Your task to perform on an android device: check data usage Image 0: 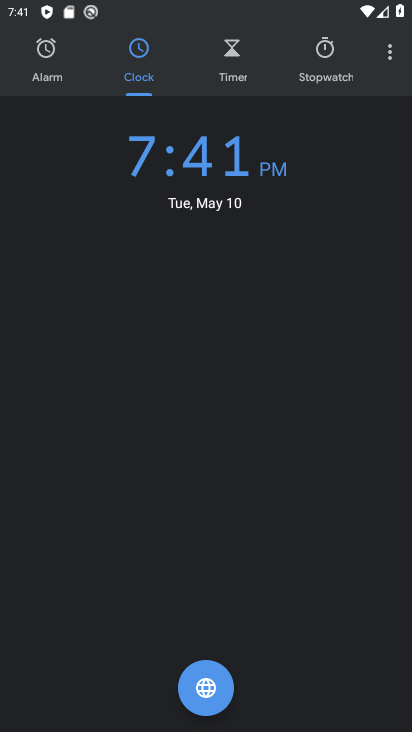
Step 0: drag from (261, 559) to (271, 181)
Your task to perform on an android device: check data usage Image 1: 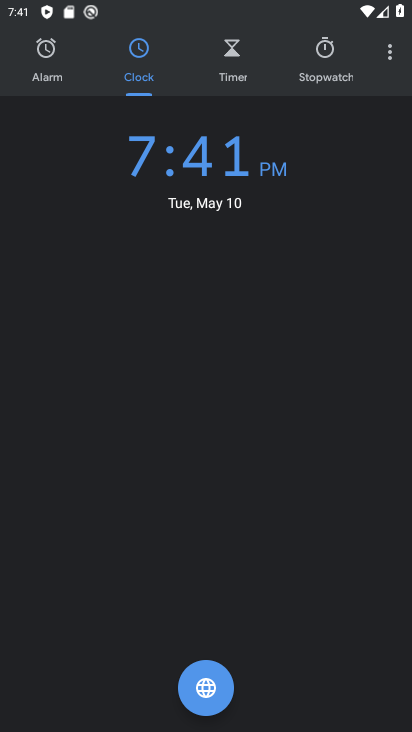
Step 1: drag from (263, 406) to (210, 153)
Your task to perform on an android device: check data usage Image 2: 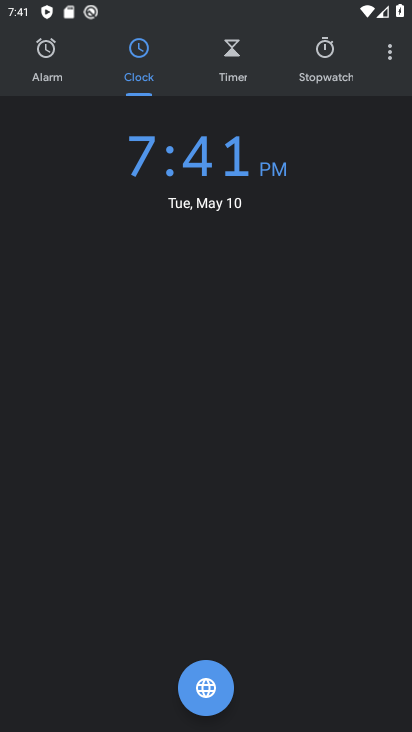
Step 2: press home button
Your task to perform on an android device: check data usage Image 3: 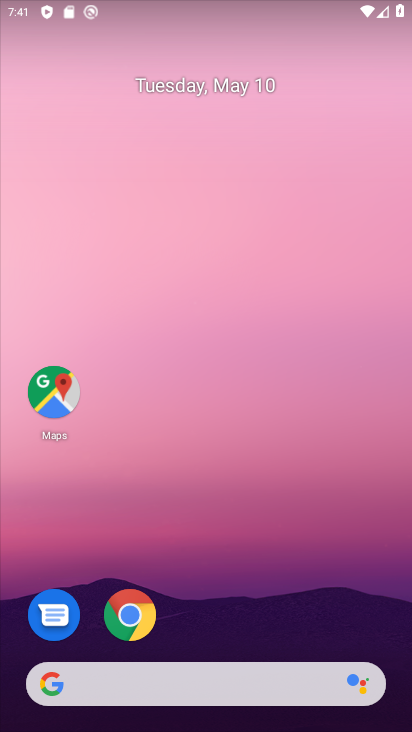
Step 3: drag from (185, 627) to (197, 50)
Your task to perform on an android device: check data usage Image 4: 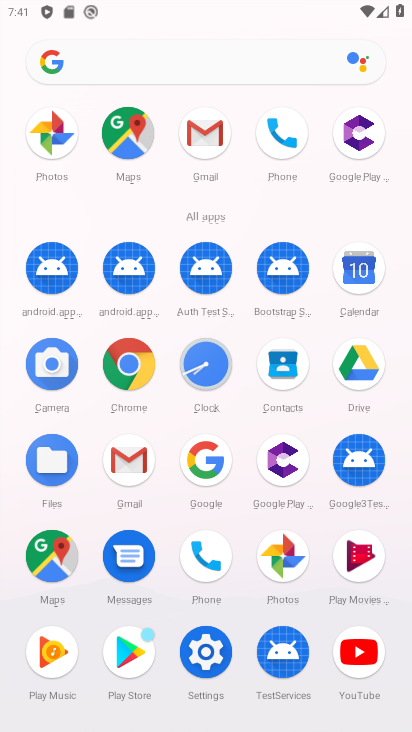
Step 4: click (183, 647)
Your task to perform on an android device: check data usage Image 5: 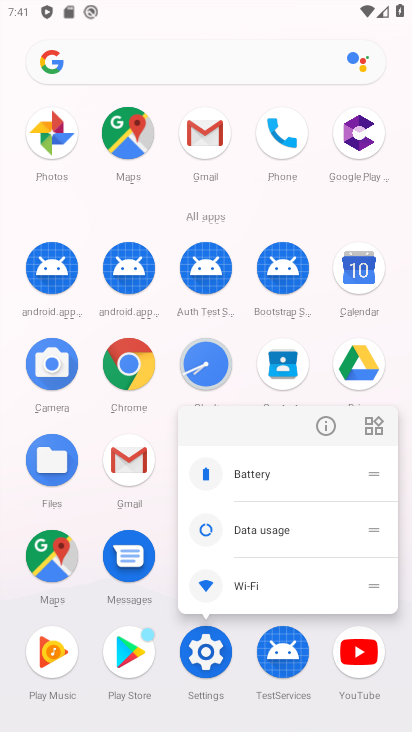
Step 5: click (321, 432)
Your task to perform on an android device: check data usage Image 6: 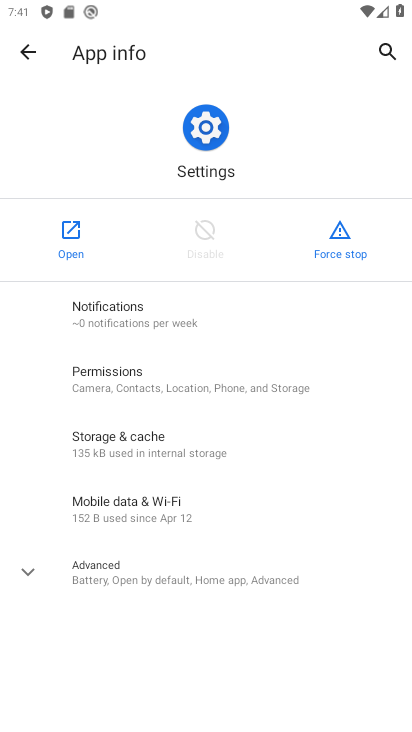
Step 6: click (59, 226)
Your task to perform on an android device: check data usage Image 7: 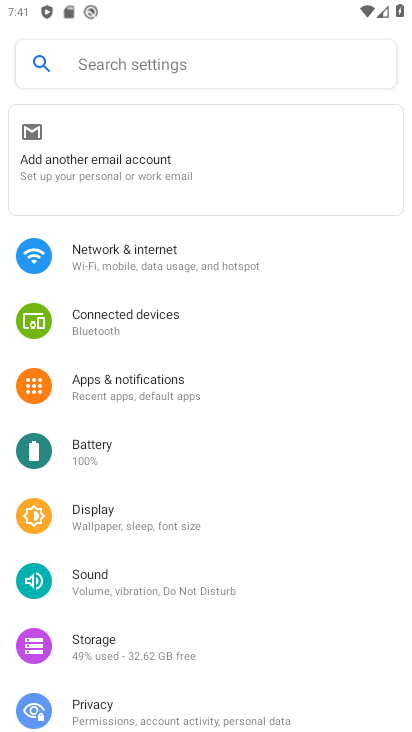
Step 7: click (169, 248)
Your task to perform on an android device: check data usage Image 8: 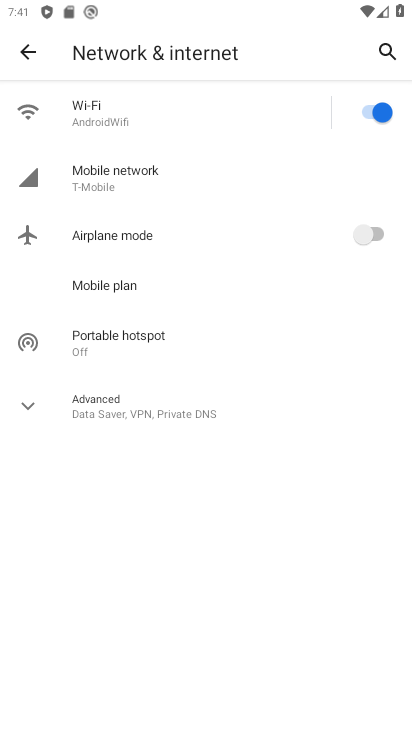
Step 8: click (214, 189)
Your task to perform on an android device: check data usage Image 9: 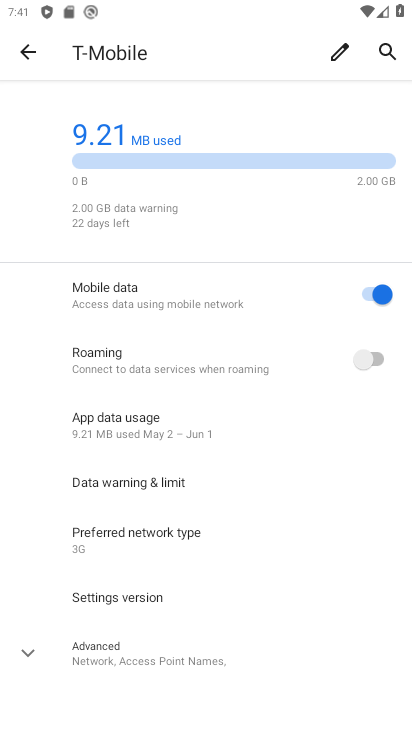
Step 9: task complete